Your task to perform on an android device: Go to wifi settings Image 0: 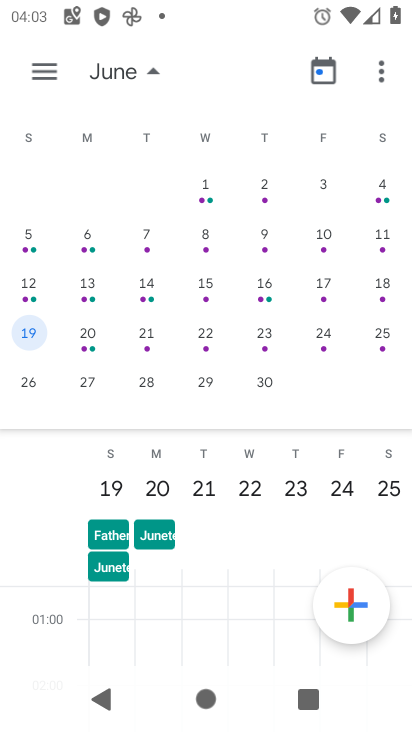
Step 0: press home button
Your task to perform on an android device: Go to wifi settings Image 1: 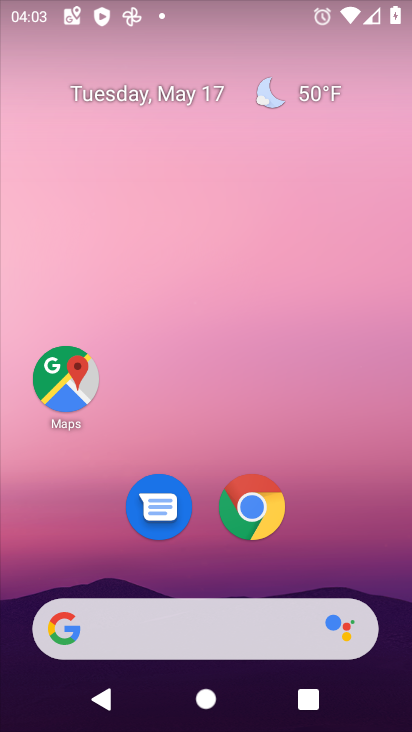
Step 1: drag from (325, 536) to (233, 78)
Your task to perform on an android device: Go to wifi settings Image 2: 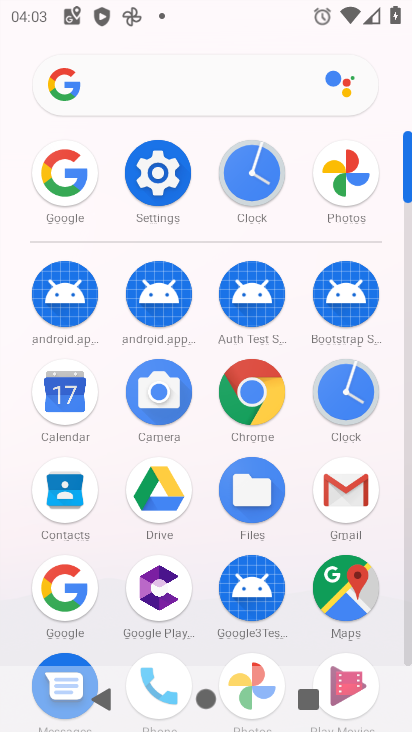
Step 2: click (161, 178)
Your task to perform on an android device: Go to wifi settings Image 3: 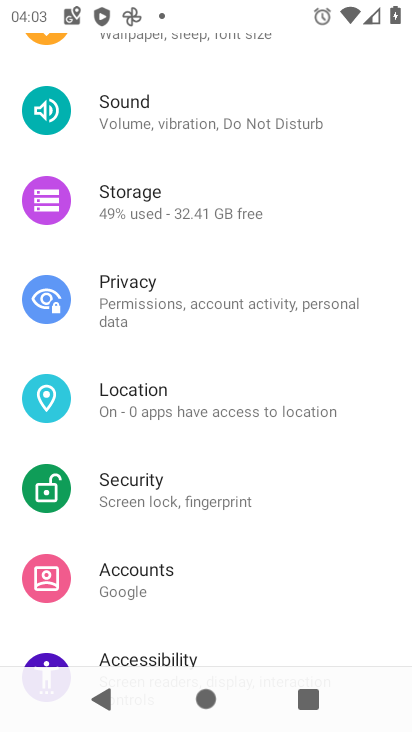
Step 3: drag from (227, 137) to (143, 627)
Your task to perform on an android device: Go to wifi settings Image 4: 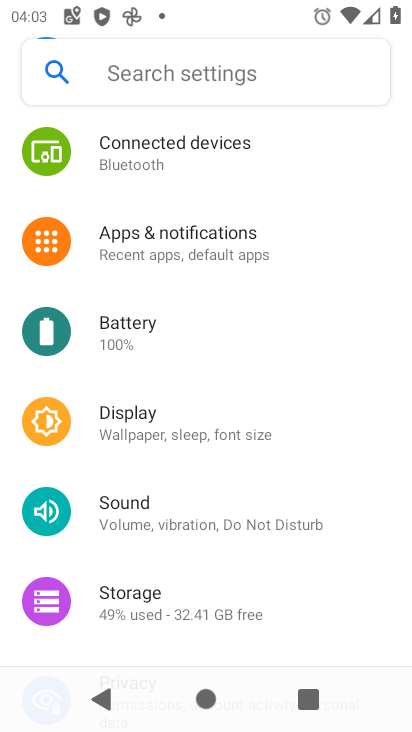
Step 4: drag from (242, 172) to (192, 552)
Your task to perform on an android device: Go to wifi settings Image 5: 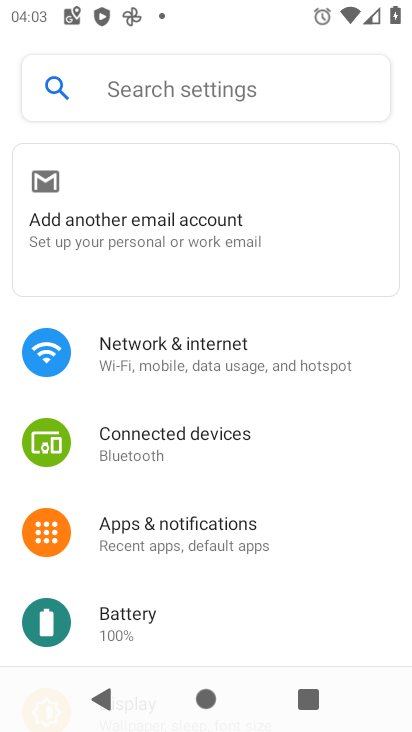
Step 5: click (155, 347)
Your task to perform on an android device: Go to wifi settings Image 6: 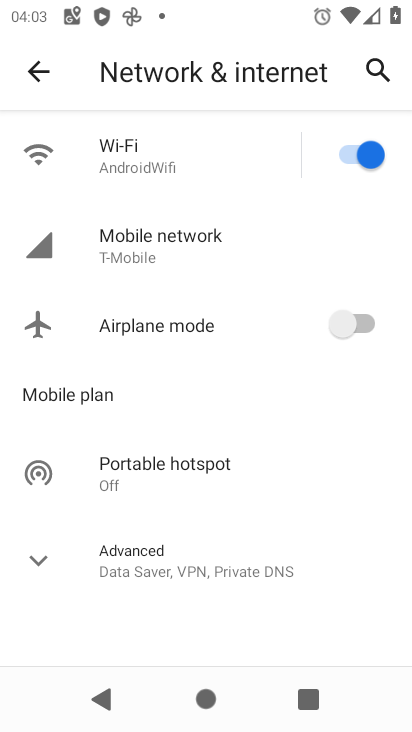
Step 6: click (193, 171)
Your task to perform on an android device: Go to wifi settings Image 7: 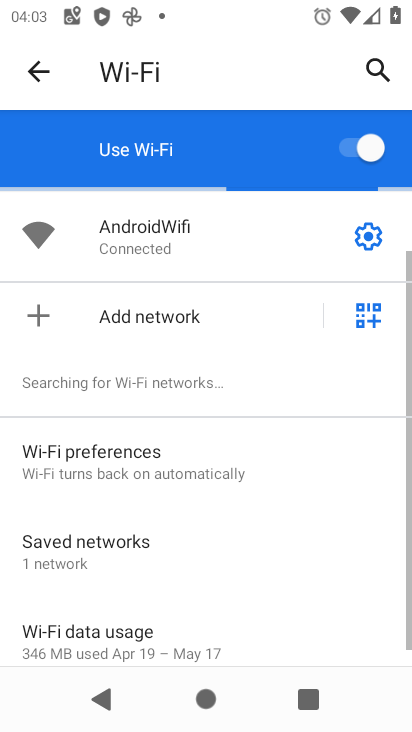
Step 7: task complete